Your task to perform on an android device: remove spam from my inbox in the gmail app Image 0: 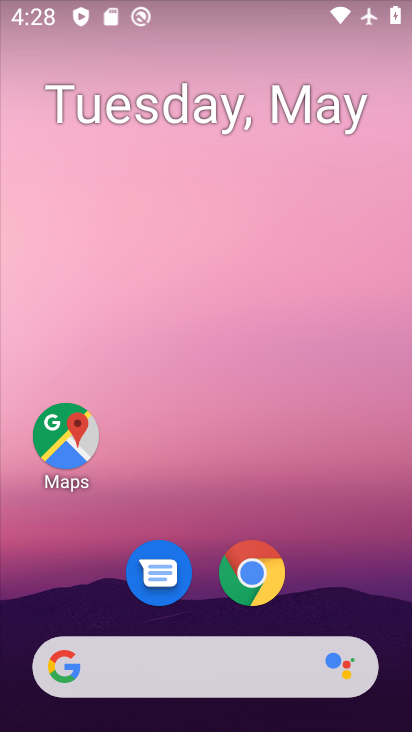
Step 0: drag from (332, 544) to (267, 89)
Your task to perform on an android device: remove spam from my inbox in the gmail app Image 1: 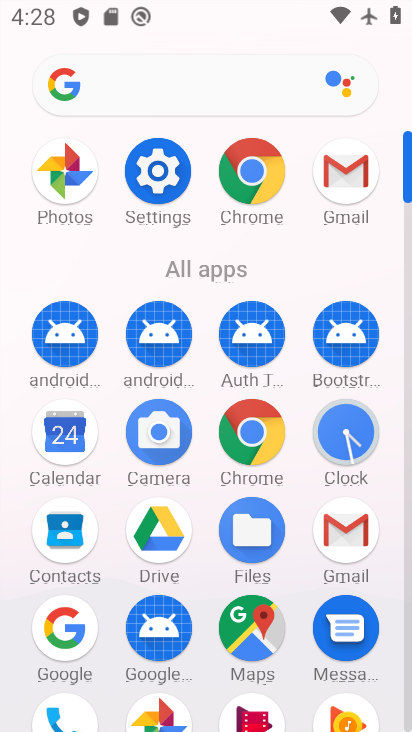
Step 1: click (350, 187)
Your task to perform on an android device: remove spam from my inbox in the gmail app Image 2: 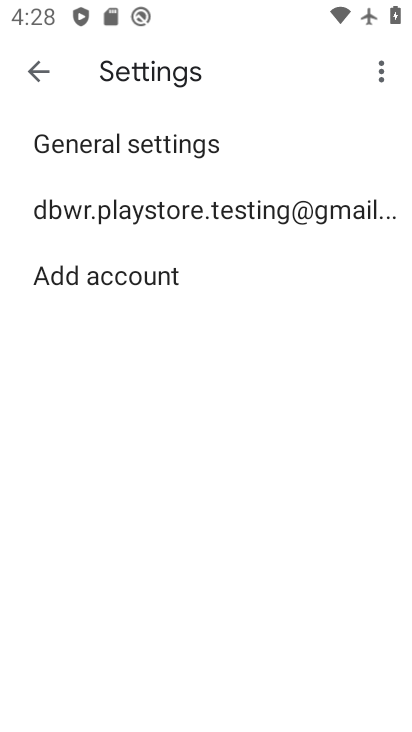
Step 2: click (46, 72)
Your task to perform on an android device: remove spam from my inbox in the gmail app Image 3: 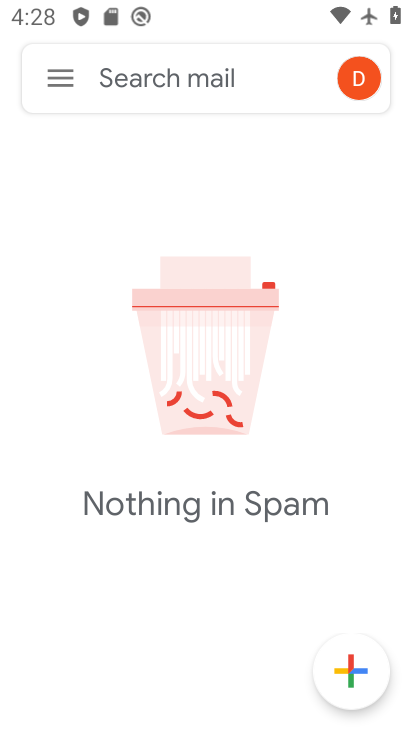
Step 3: task complete